Your task to perform on an android device: change notifications settings Image 0: 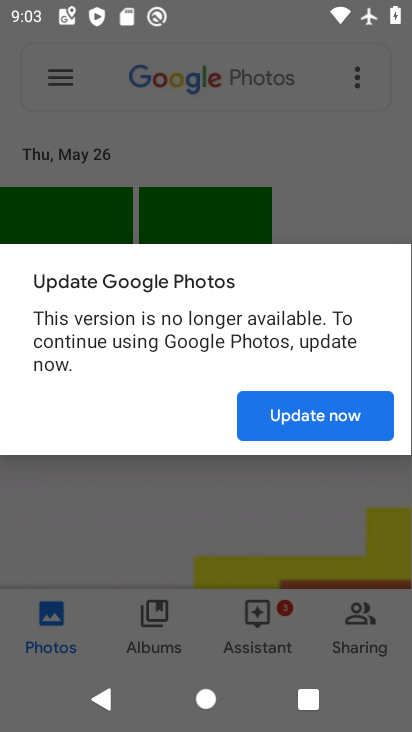
Step 0: press home button
Your task to perform on an android device: change notifications settings Image 1: 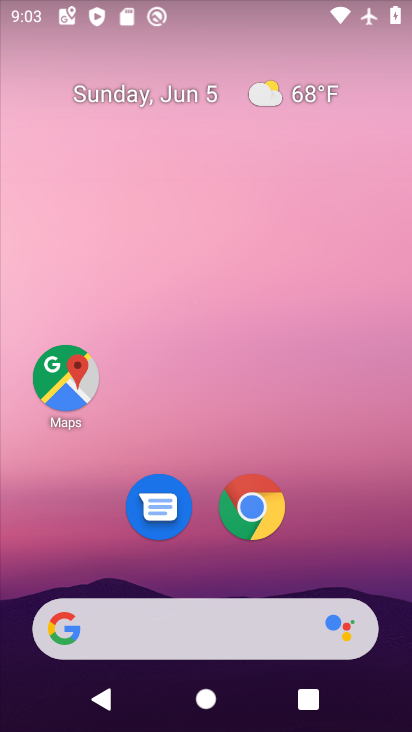
Step 1: drag from (209, 572) to (286, 5)
Your task to perform on an android device: change notifications settings Image 2: 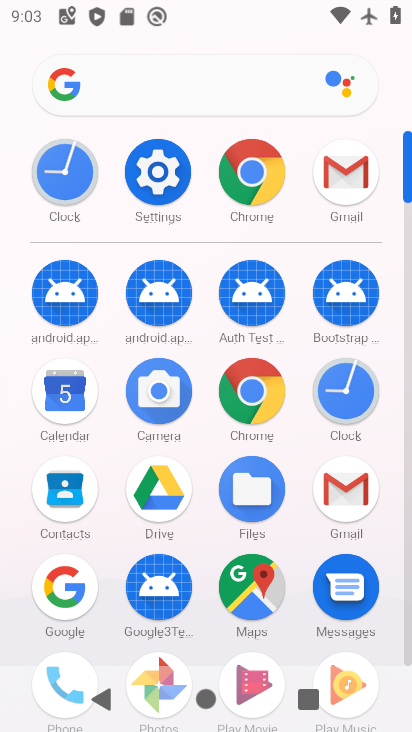
Step 2: click (156, 199)
Your task to perform on an android device: change notifications settings Image 3: 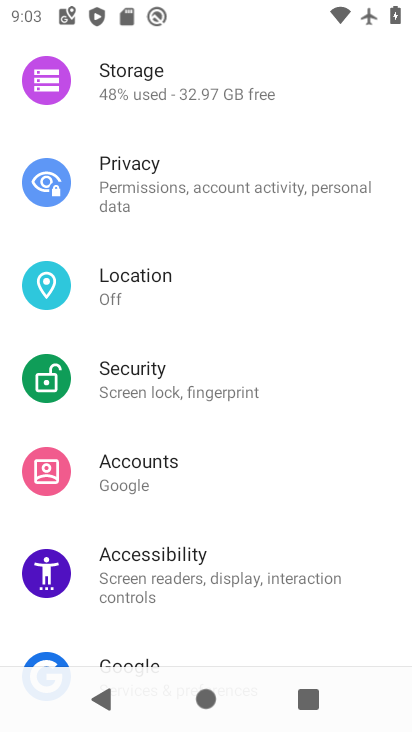
Step 3: drag from (238, 189) to (184, 535)
Your task to perform on an android device: change notifications settings Image 4: 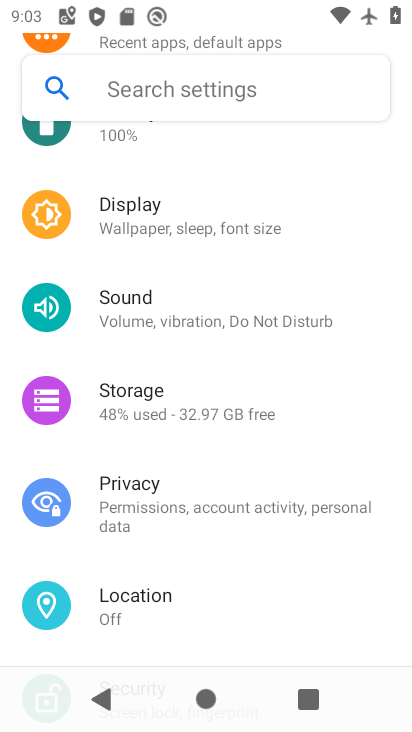
Step 4: drag from (227, 196) to (200, 503)
Your task to perform on an android device: change notifications settings Image 5: 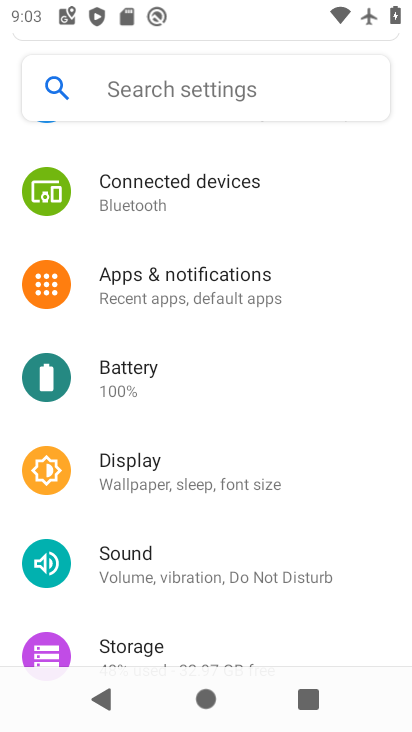
Step 5: click (218, 293)
Your task to perform on an android device: change notifications settings Image 6: 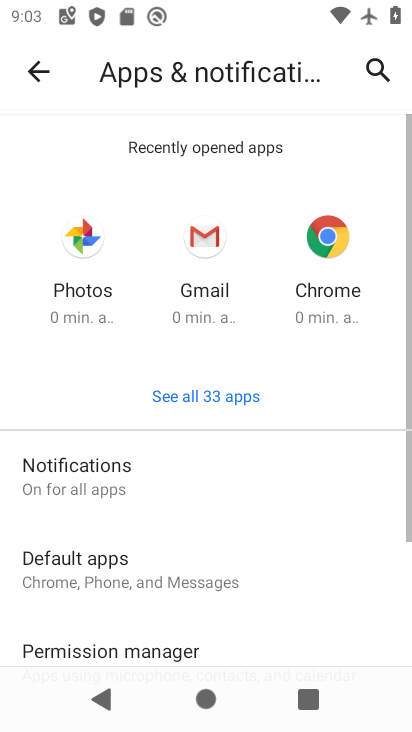
Step 6: click (142, 486)
Your task to perform on an android device: change notifications settings Image 7: 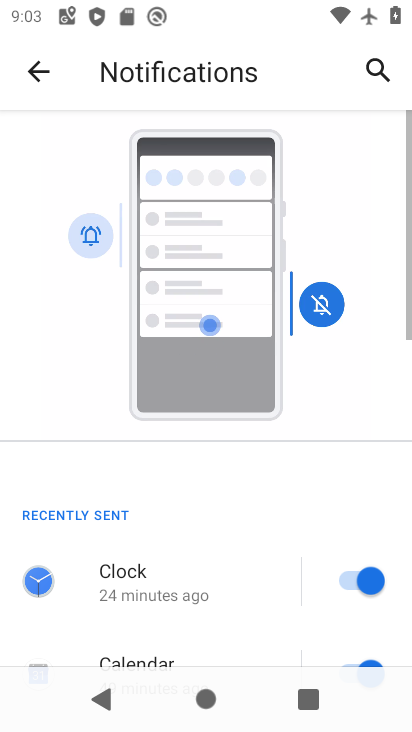
Step 7: drag from (162, 526) to (251, 91)
Your task to perform on an android device: change notifications settings Image 8: 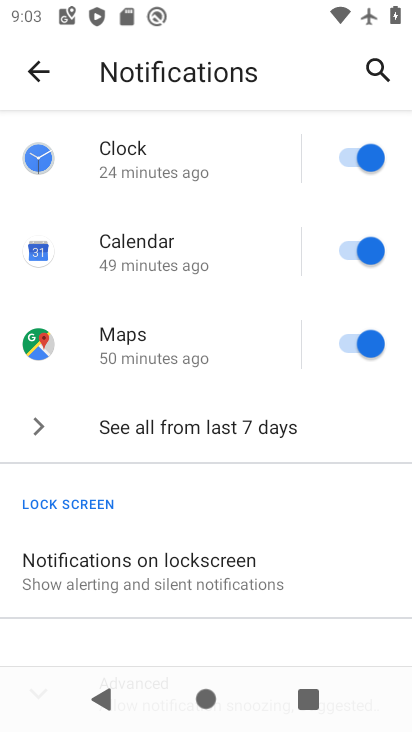
Step 8: click (148, 417)
Your task to perform on an android device: change notifications settings Image 9: 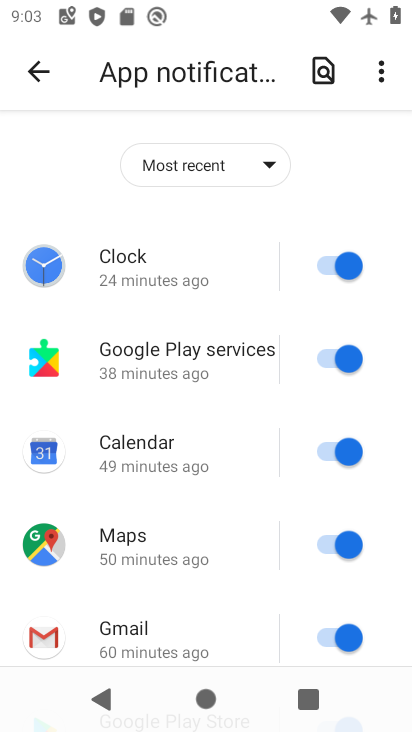
Step 9: click (327, 254)
Your task to perform on an android device: change notifications settings Image 10: 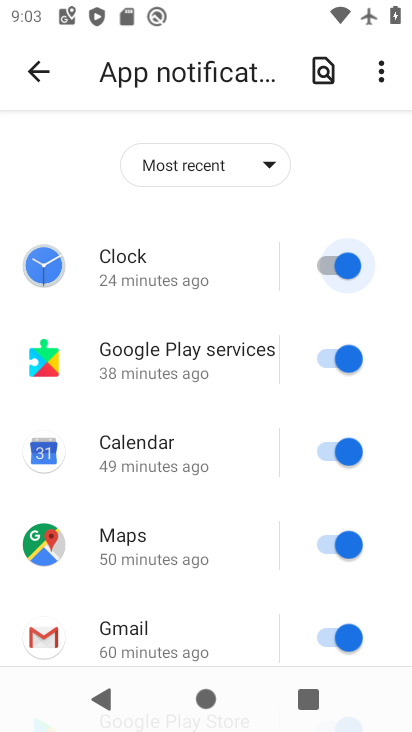
Step 10: click (324, 361)
Your task to perform on an android device: change notifications settings Image 11: 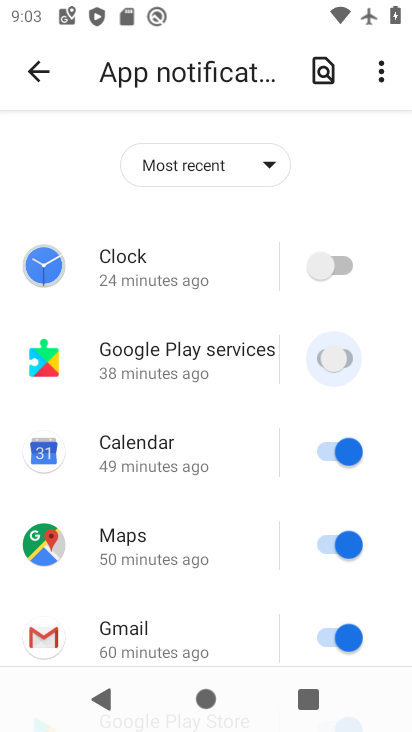
Step 11: click (316, 465)
Your task to perform on an android device: change notifications settings Image 12: 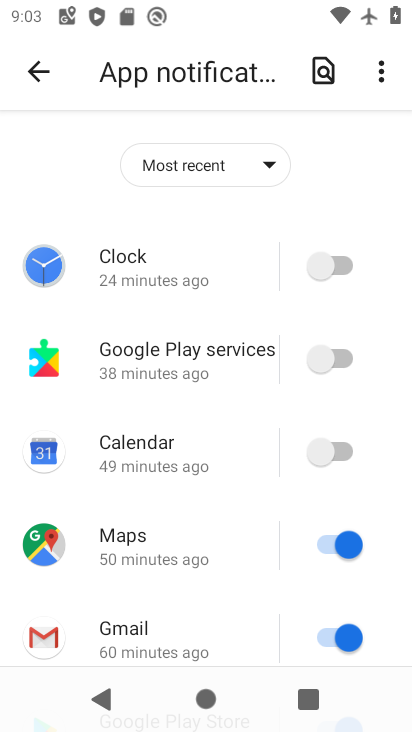
Step 12: click (318, 568)
Your task to perform on an android device: change notifications settings Image 13: 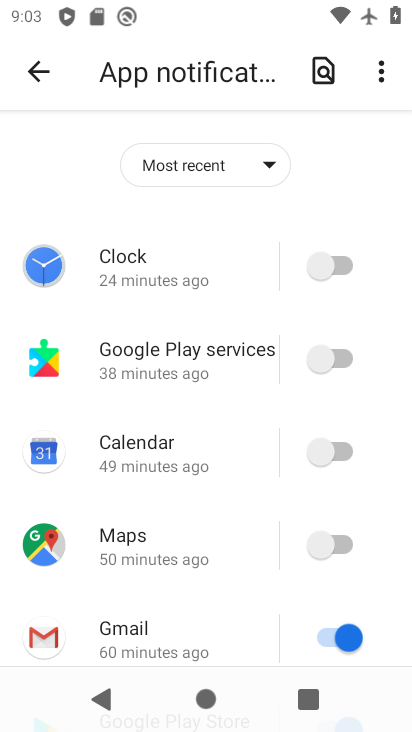
Step 13: click (328, 640)
Your task to perform on an android device: change notifications settings Image 14: 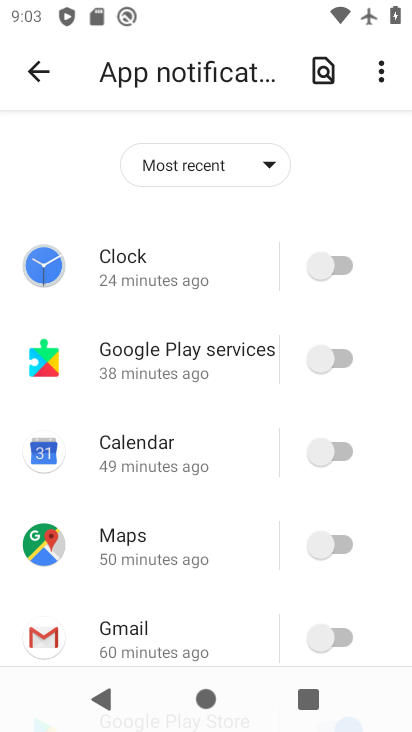
Step 14: drag from (286, 589) to (359, 81)
Your task to perform on an android device: change notifications settings Image 15: 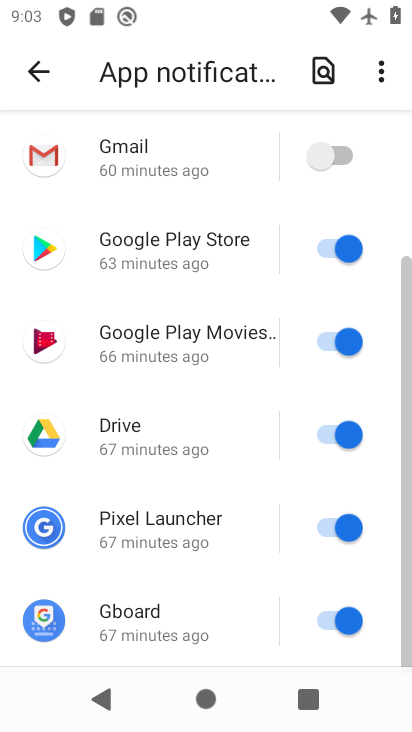
Step 15: click (320, 244)
Your task to perform on an android device: change notifications settings Image 16: 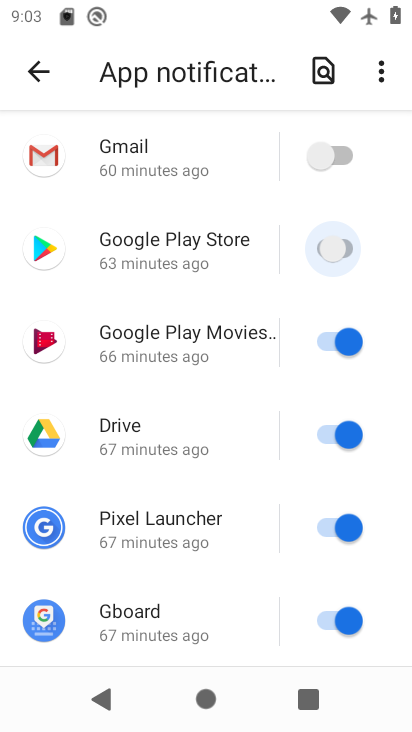
Step 16: click (317, 333)
Your task to perform on an android device: change notifications settings Image 17: 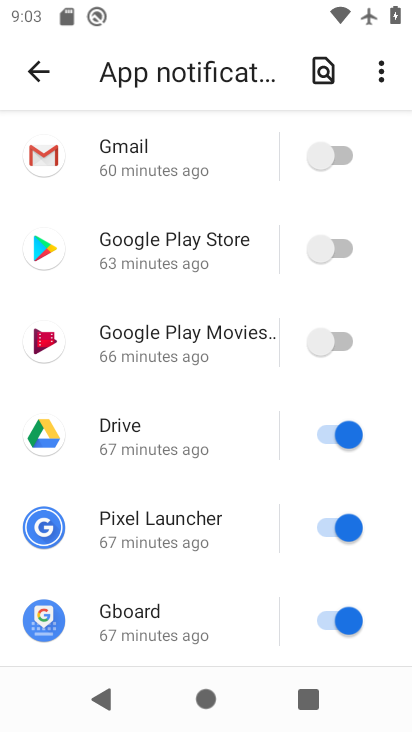
Step 17: click (317, 445)
Your task to perform on an android device: change notifications settings Image 18: 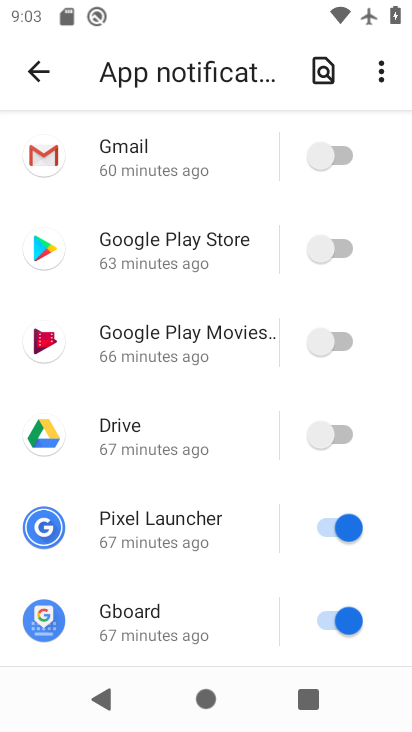
Step 18: click (319, 501)
Your task to perform on an android device: change notifications settings Image 19: 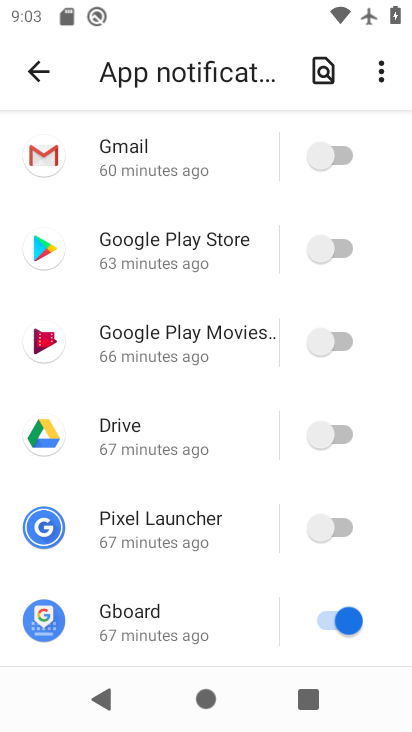
Step 19: click (313, 630)
Your task to perform on an android device: change notifications settings Image 20: 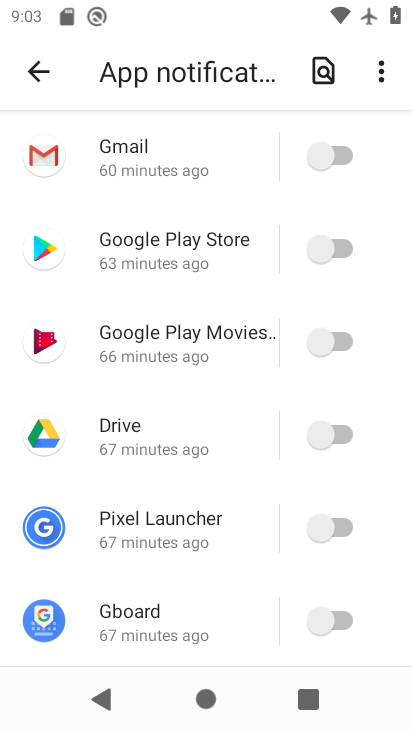
Step 20: drag from (231, 578) to (272, 363)
Your task to perform on an android device: change notifications settings Image 21: 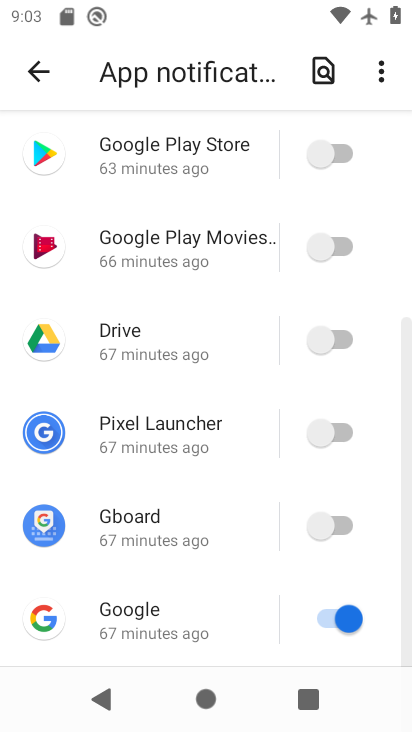
Step 21: drag from (243, 584) to (288, 160)
Your task to perform on an android device: change notifications settings Image 22: 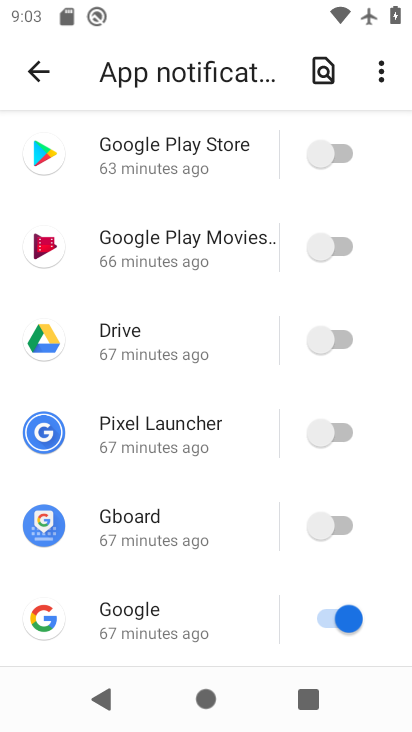
Step 22: click (314, 623)
Your task to perform on an android device: change notifications settings Image 23: 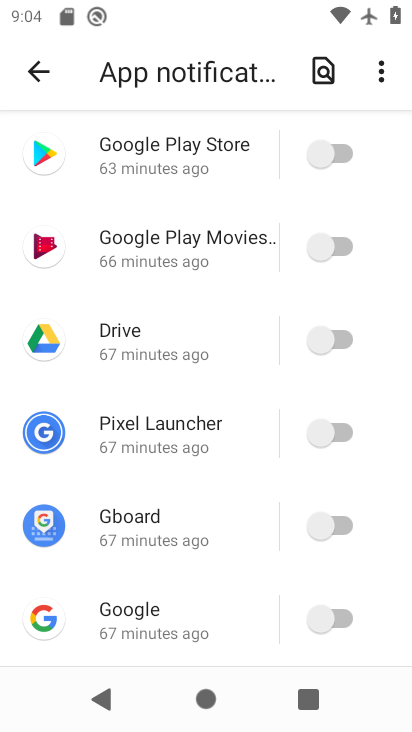
Step 23: task complete